Your task to perform on an android device: see tabs open on other devices in the chrome app Image 0: 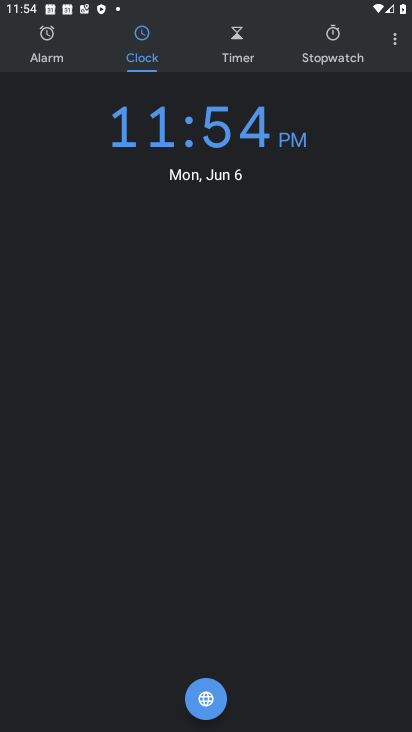
Step 0: press home button
Your task to perform on an android device: see tabs open on other devices in the chrome app Image 1: 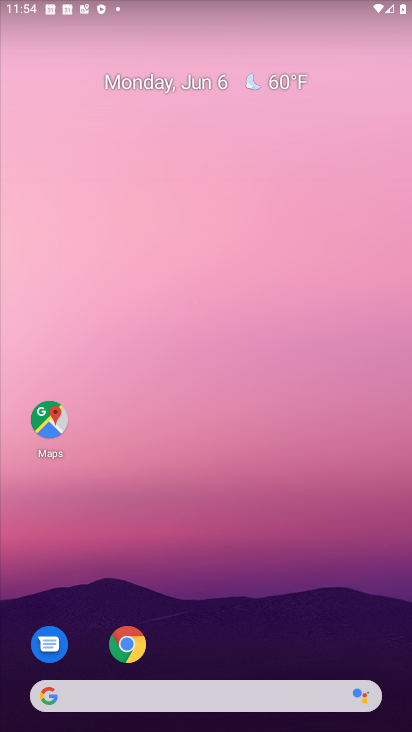
Step 1: drag from (143, 651) to (178, 101)
Your task to perform on an android device: see tabs open on other devices in the chrome app Image 2: 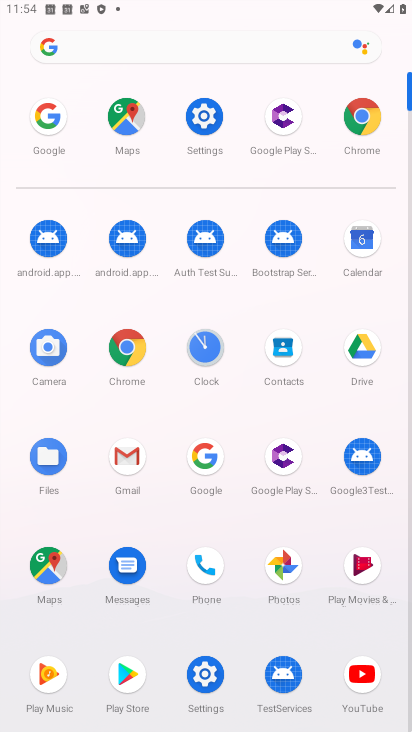
Step 2: click (358, 143)
Your task to perform on an android device: see tabs open on other devices in the chrome app Image 3: 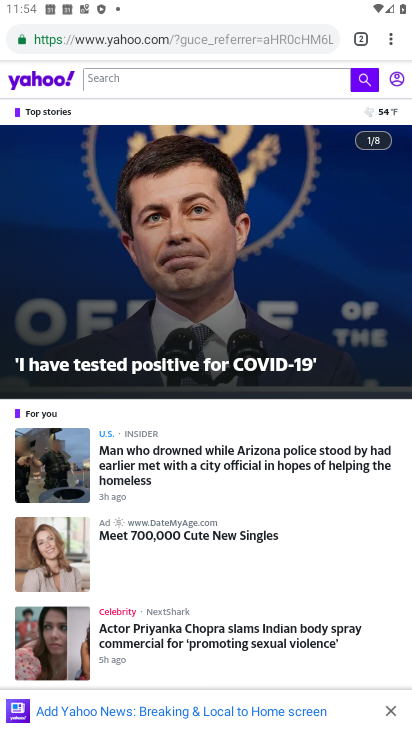
Step 3: task complete